Your task to perform on an android device: turn off location history Image 0: 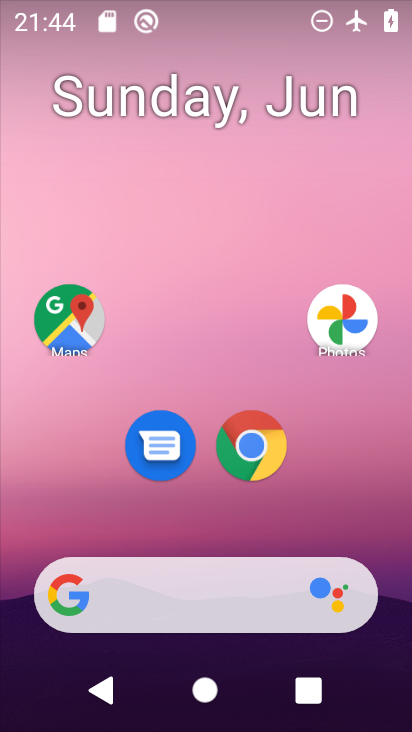
Step 0: press home button
Your task to perform on an android device: turn off location history Image 1: 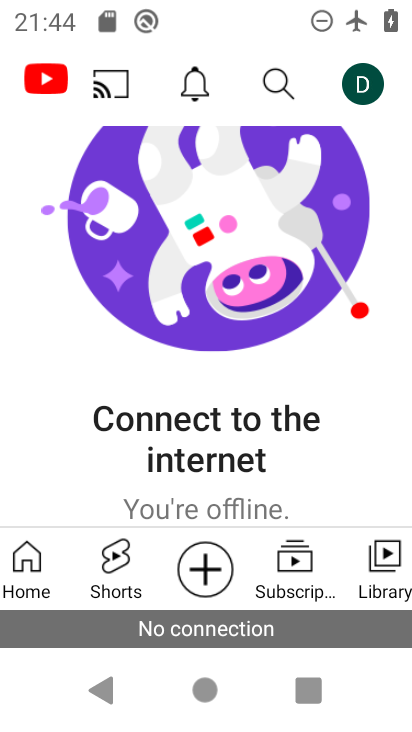
Step 1: click (77, 319)
Your task to perform on an android device: turn off location history Image 2: 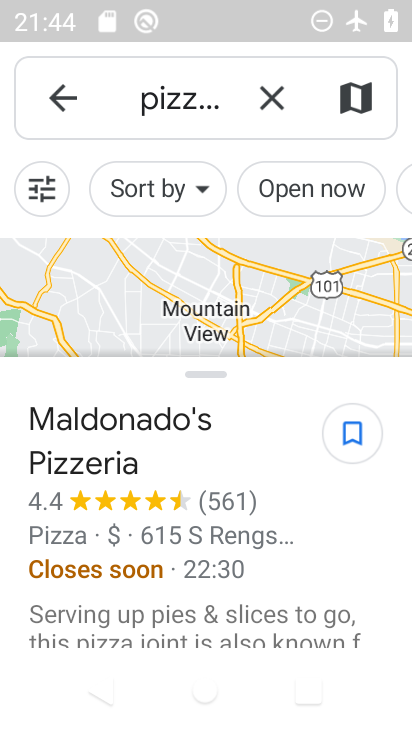
Step 2: click (274, 97)
Your task to perform on an android device: turn off location history Image 3: 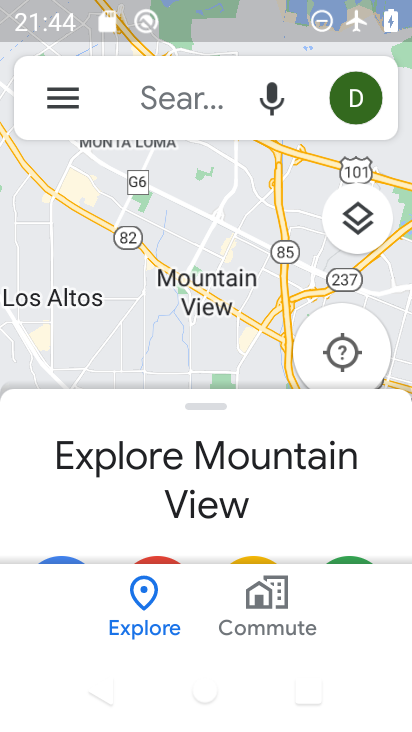
Step 3: task complete